Your task to perform on an android device: Search for a coffee table on Crate & Barrel Image 0: 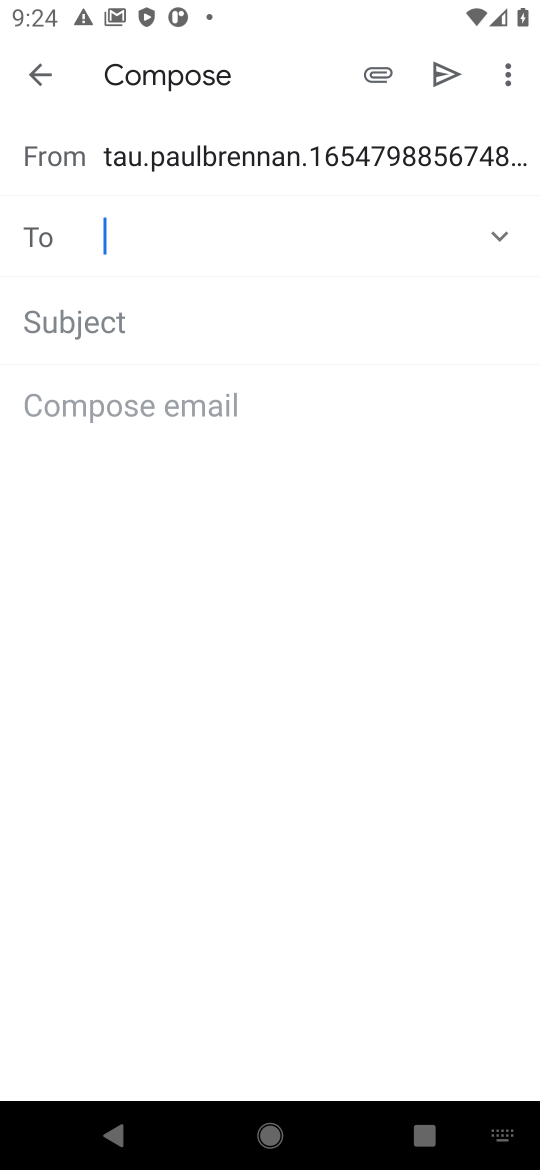
Step 0: press home button
Your task to perform on an android device: Search for a coffee table on Crate & Barrel Image 1: 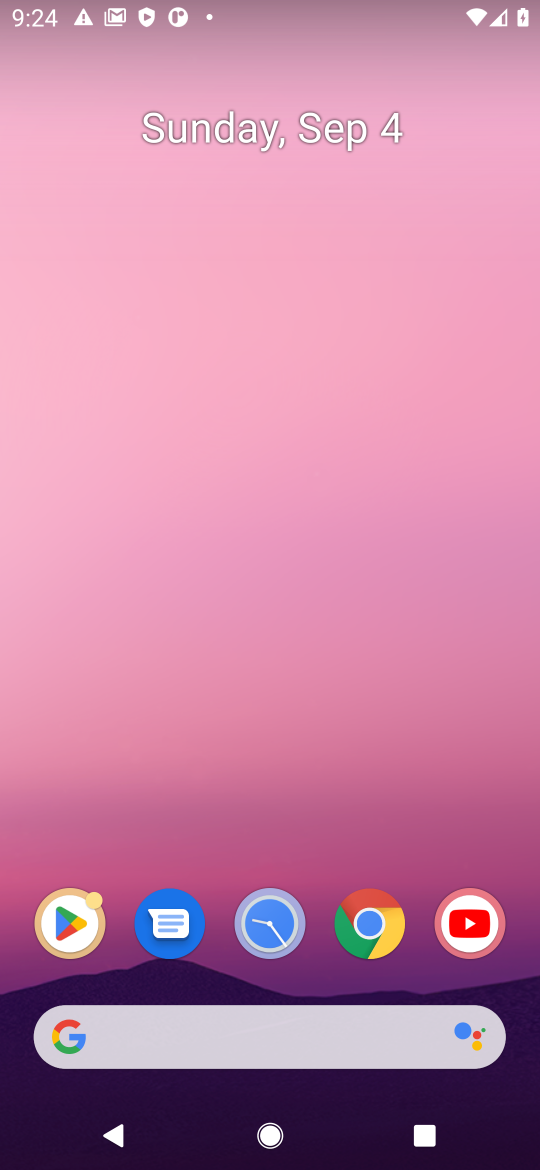
Step 1: click (389, 1030)
Your task to perform on an android device: Search for a coffee table on Crate & Barrel Image 2: 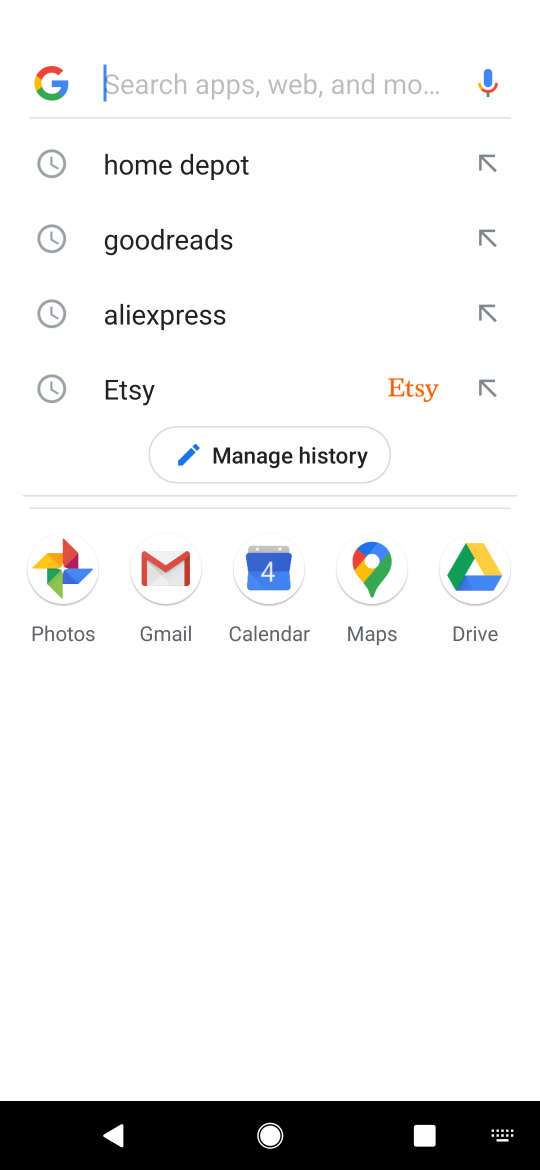
Step 2: click (254, 77)
Your task to perform on an android device: Search for a coffee table on Crate & Barrel Image 3: 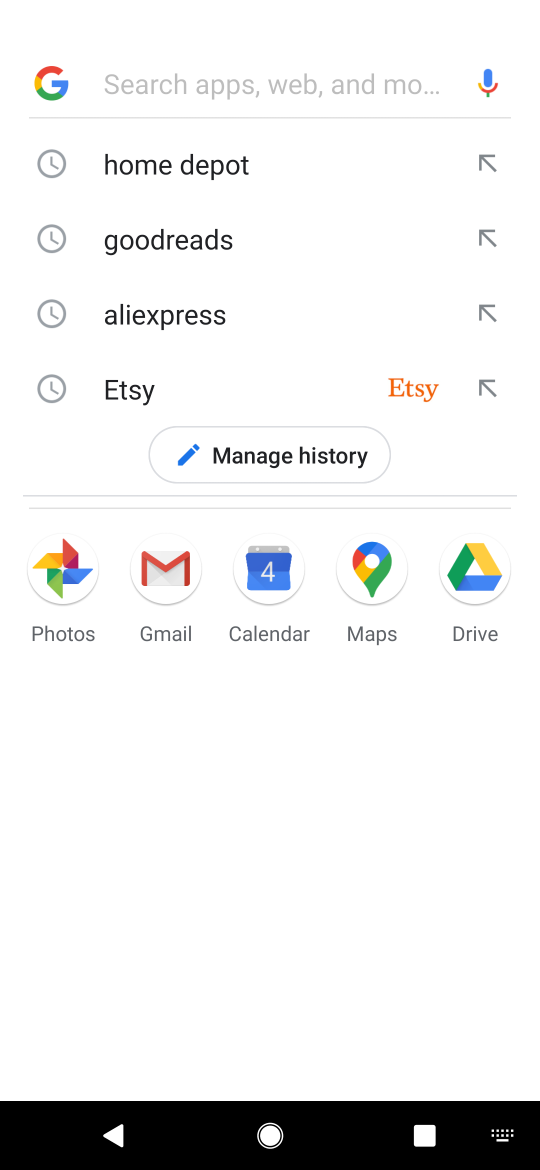
Step 3: press enter
Your task to perform on an android device: Search for a coffee table on Crate & Barrel Image 4: 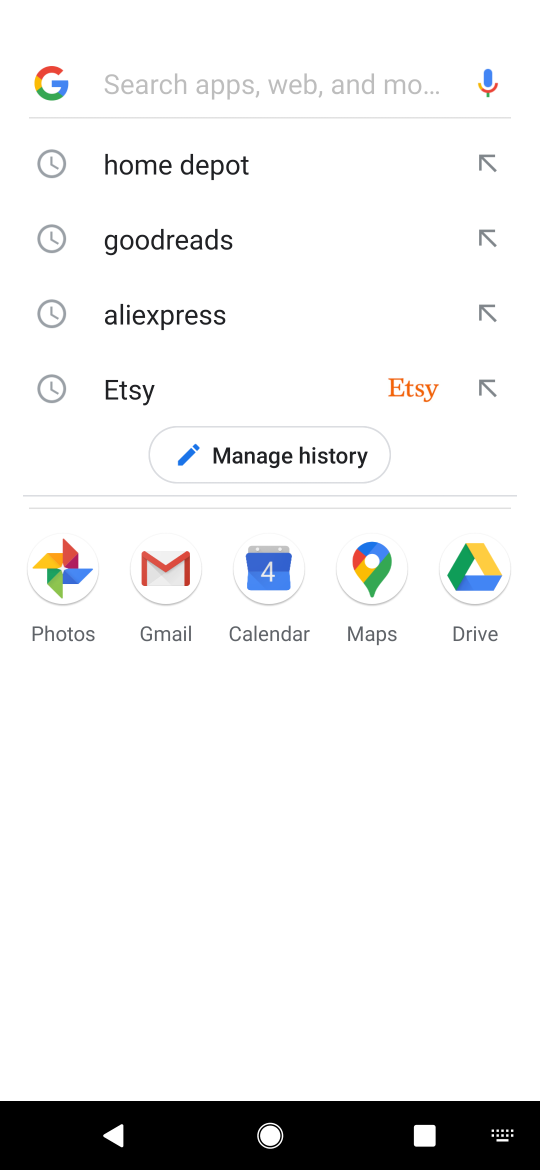
Step 4: type "crate barrel"
Your task to perform on an android device: Search for a coffee table on Crate & Barrel Image 5: 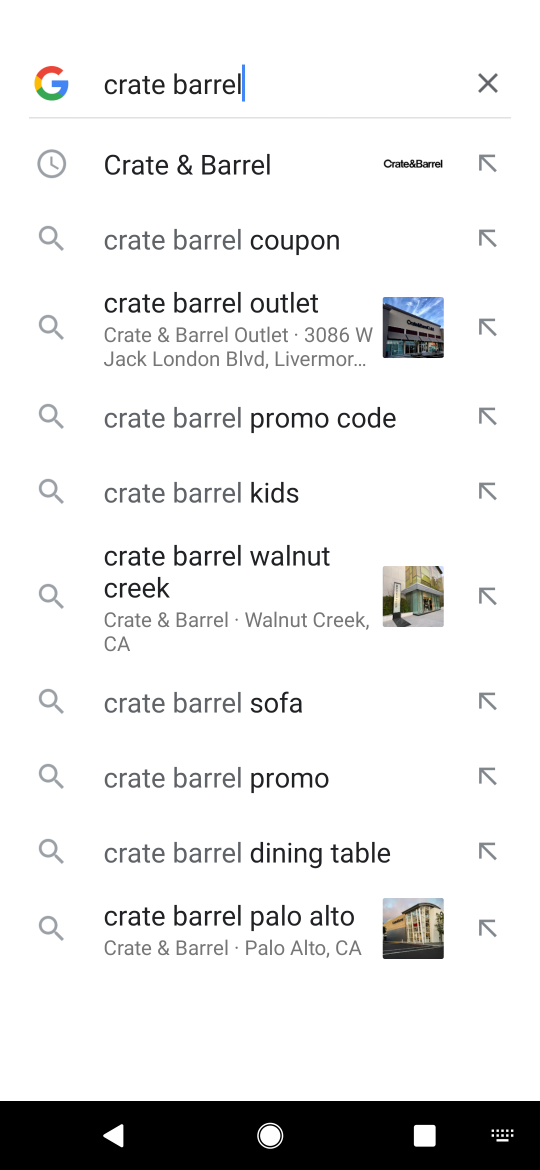
Step 5: click (214, 163)
Your task to perform on an android device: Search for a coffee table on Crate & Barrel Image 6: 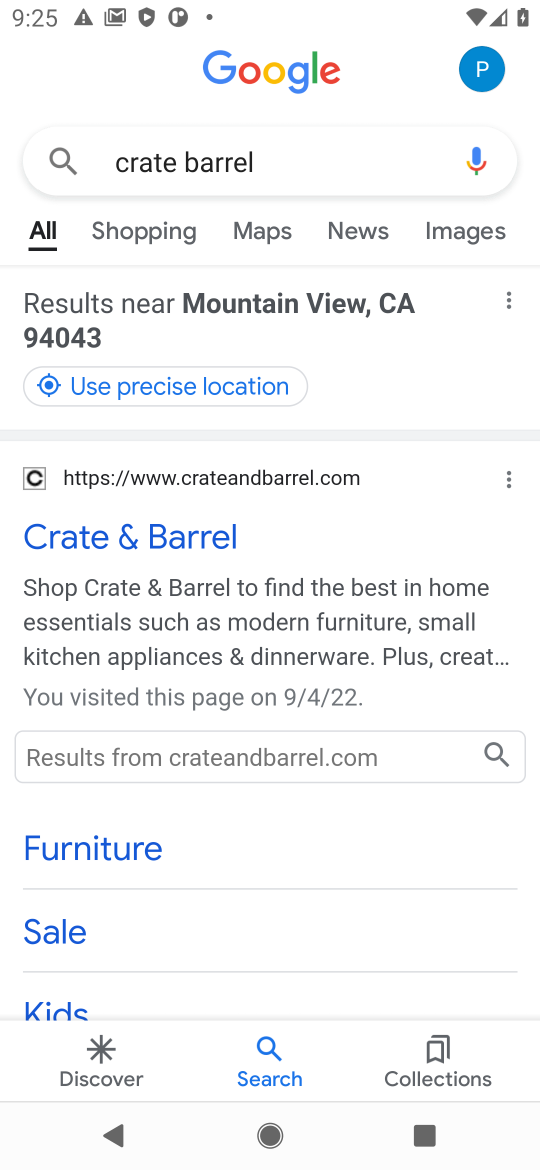
Step 6: click (161, 532)
Your task to perform on an android device: Search for a coffee table on Crate & Barrel Image 7: 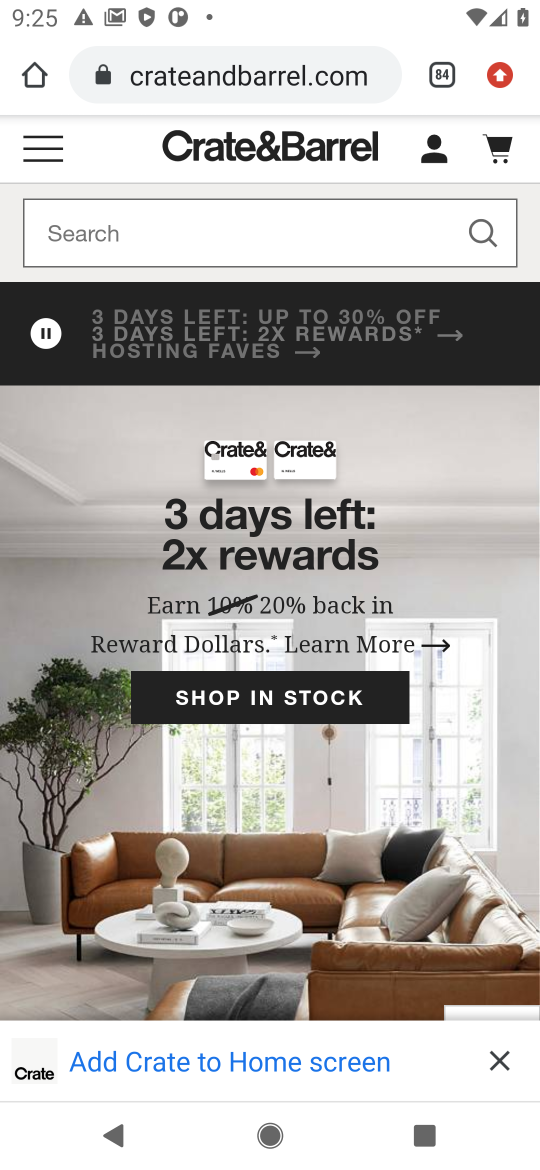
Step 7: click (175, 230)
Your task to perform on an android device: Search for a coffee table on Crate & Barrel Image 8: 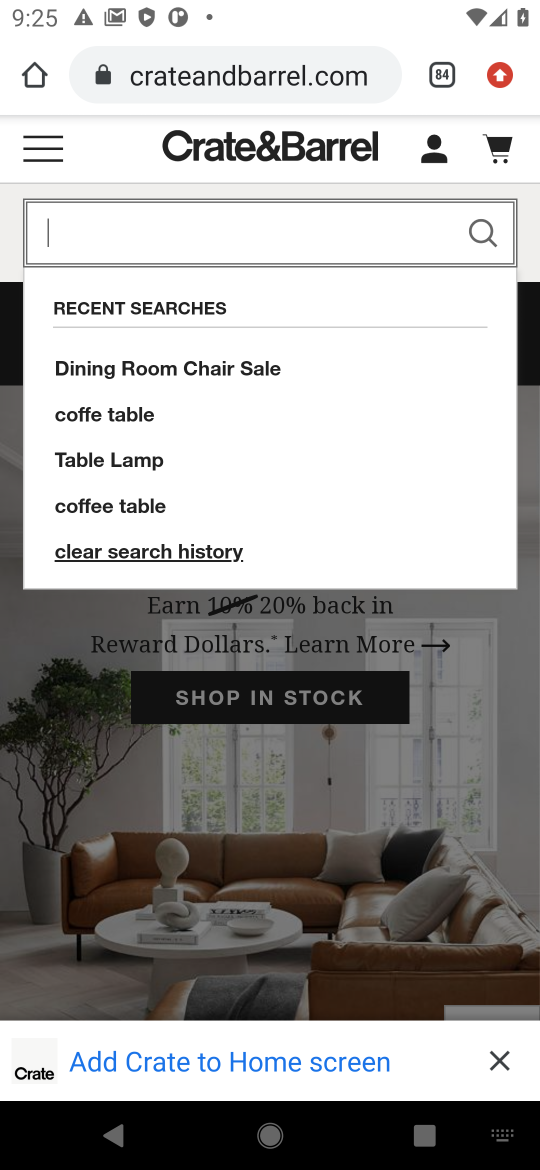
Step 8: press enter
Your task to perform on an android device: Search for a coffee table on Crate & Barrel Image 9: 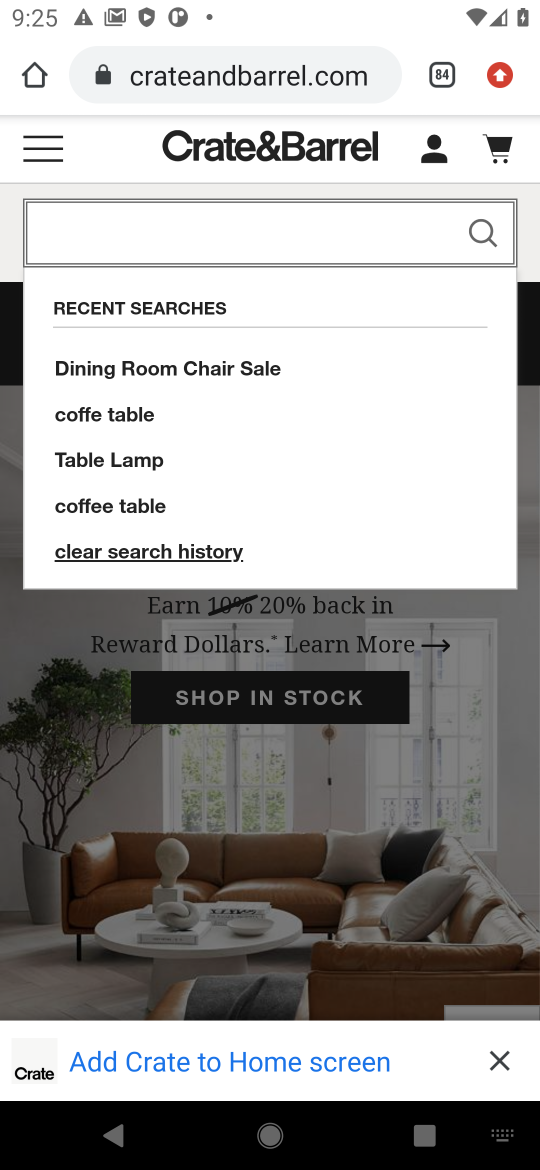
Step 9: type "coffee table "
Your task to perform on an android device: Search for a coffee table on Crate & Barrel Image 10: 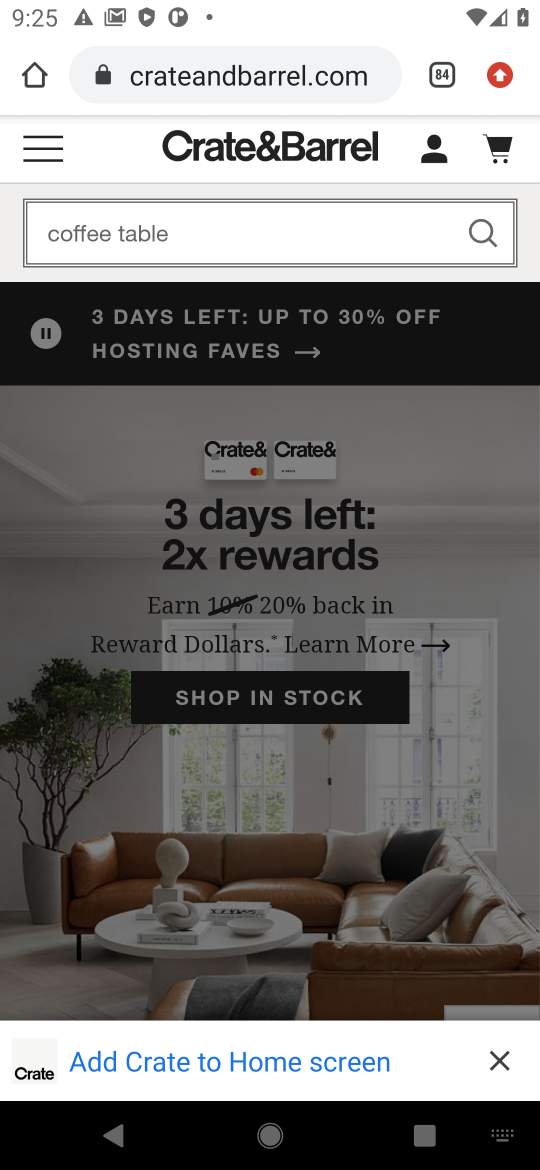
Step 10: click (479, 227)
Your task to perform on an android device: Search for a coffee table on Crate & Barrel Image 11: 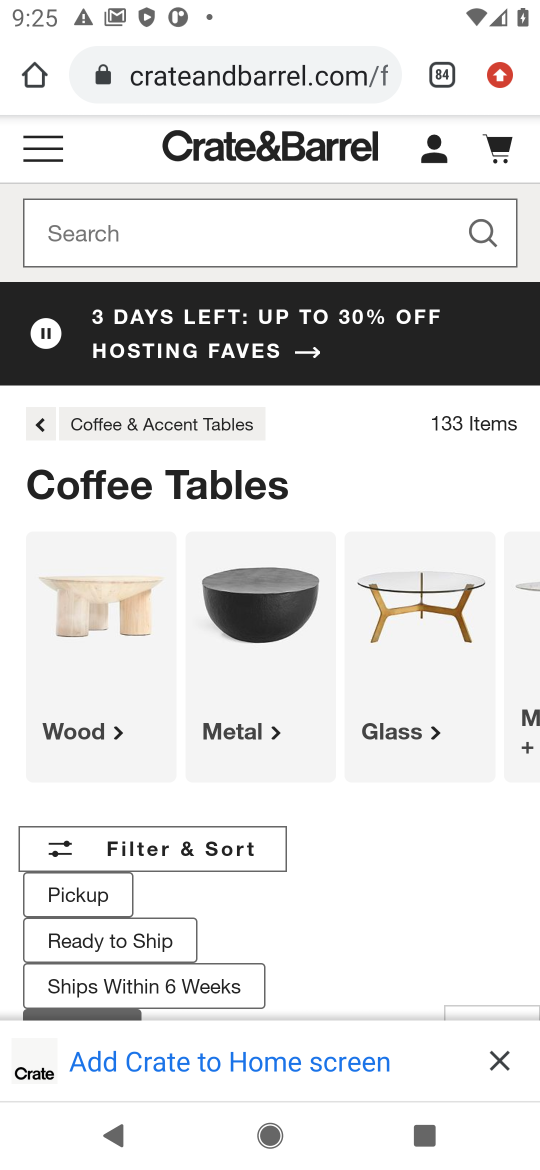
Step 11: task complete